Your task to perform on an android device: Go to Yahoo.com Image 0: 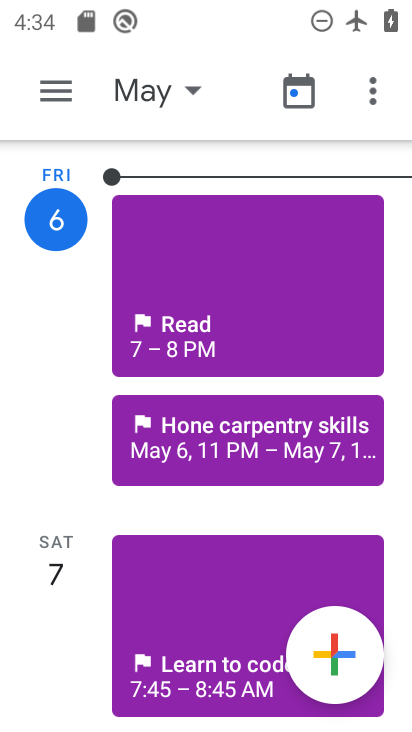
Step 0: press home button
Your task to perform on an android device: Go to Yahoo.com Image 1: 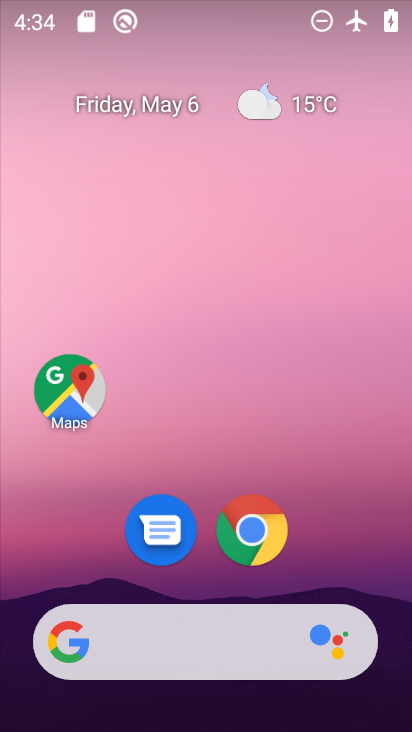
Step 1: click (279, 543)
Your task to perform on an android device: Go to Yahoo.com Image 2: 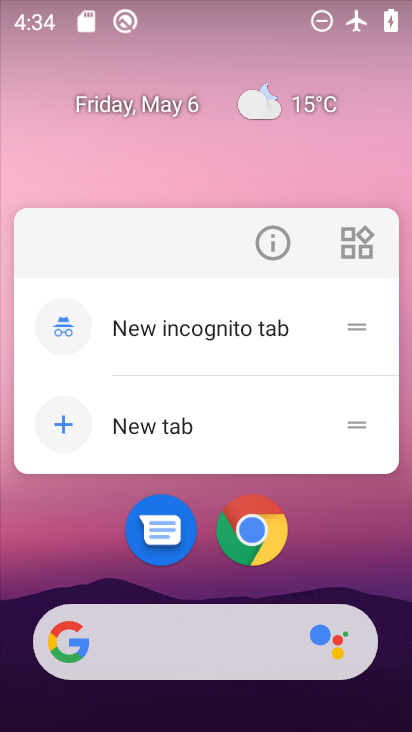
Step 2: click (259, 508)
Your task to perform on an android device: Go to Yahoo.com Image 3: 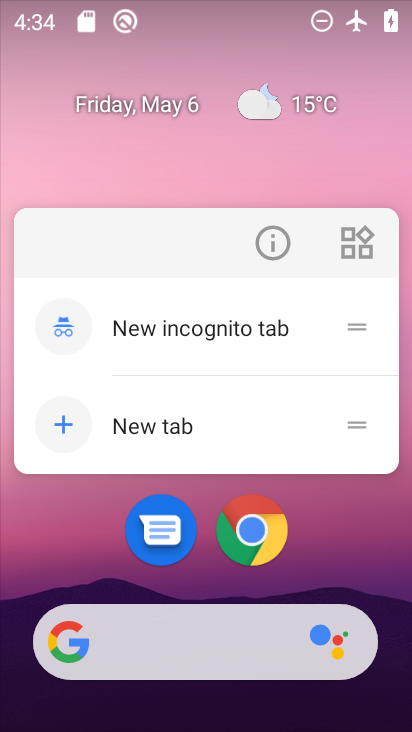
Step 3: click (259, 508)
Your task to perform on an android device: Go to Yahoo.com Image 4: 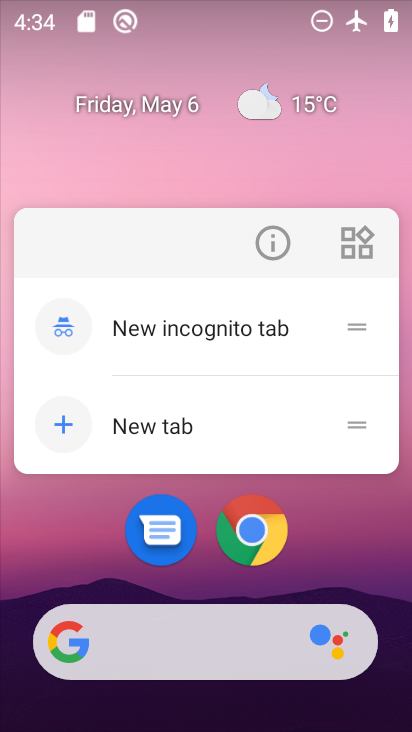
Step 4: click (265, 517)
Your task to perform on an android device: Go to Yahoo.com Image 5: 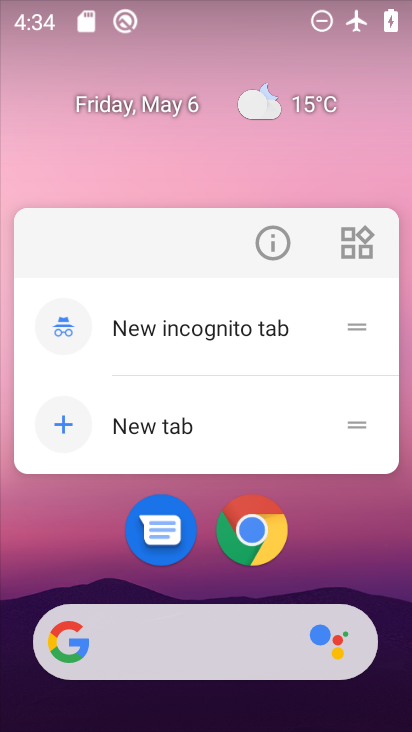
Step 5: click (252, 539)
Your task to perform on an android device: Go to Yahoo.com Image 6: 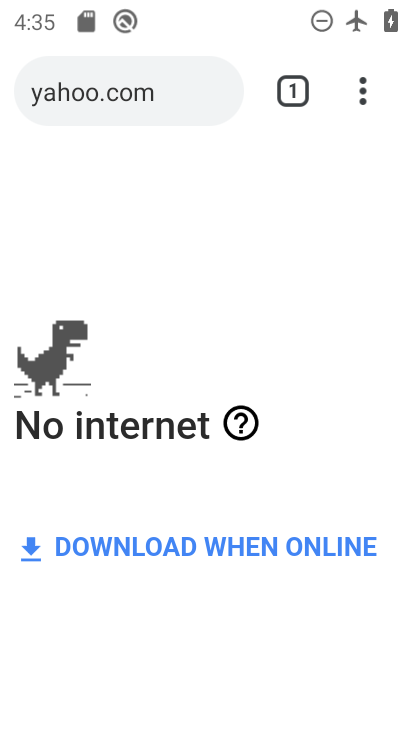
Step 6: task complete